Your task to perform on an android device: Toggle the flashlight Image 0: 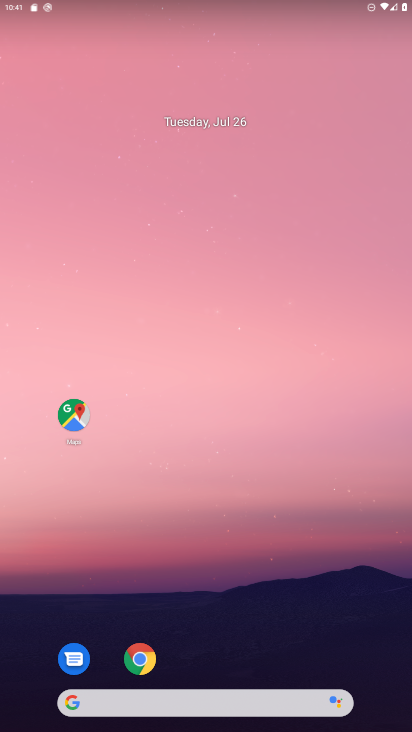
Step 0: drag from (388, 702) to (332, 178)
Your task to perform on an android device: Toggle the flashlight Image 1: 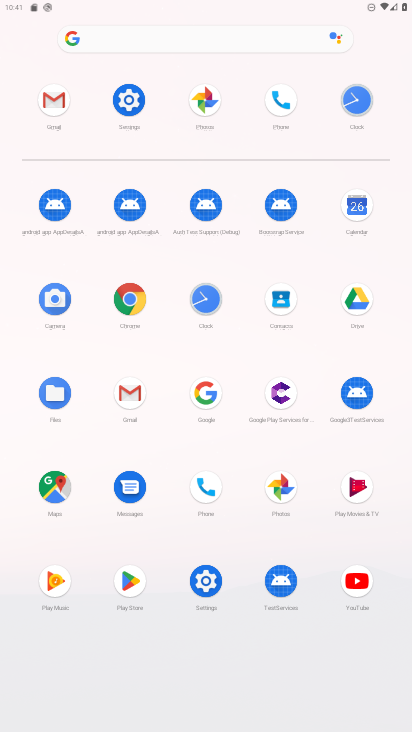
Step 1: click (113, 100)
Your task to perform on an android device: Toggle the flashlight Image 2: 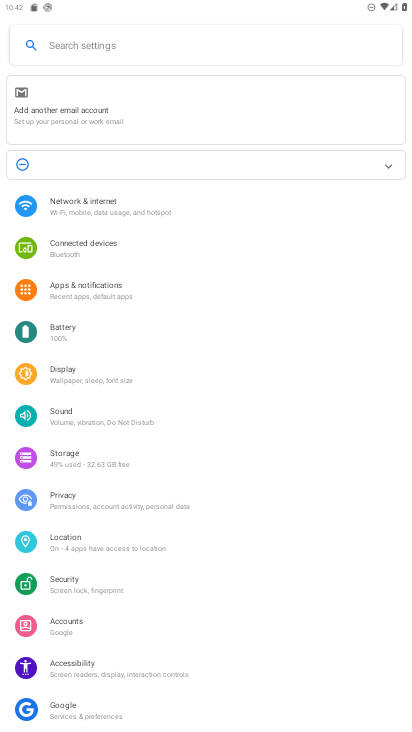
Step 2: click (80, 368)
Your task to perform on an android device: Toggle the flashlight Image 3: 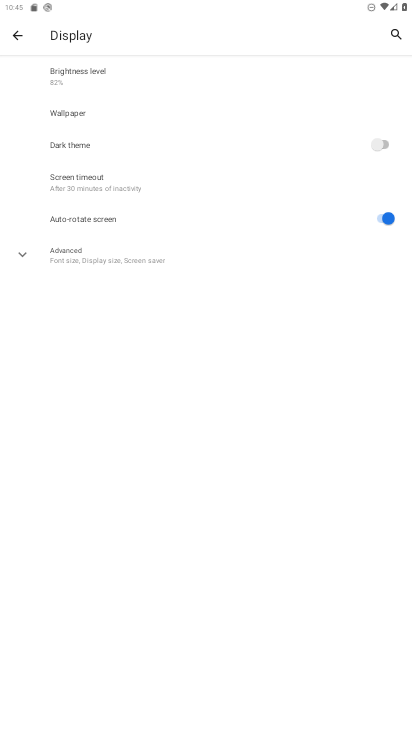
Step 3: task complete